Your task to perform on an android device: delete location history Image 0: 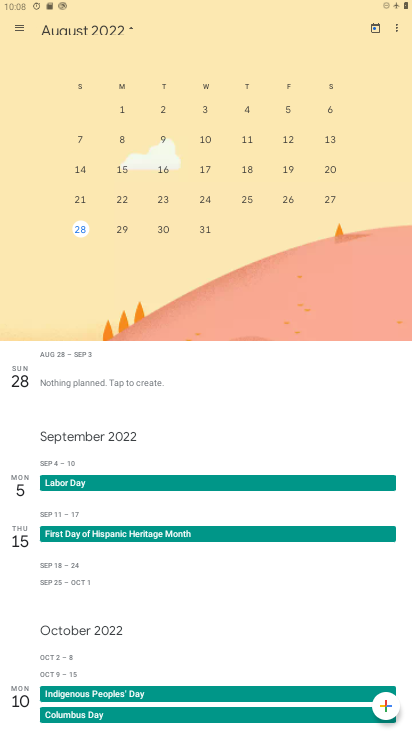
Step 0: press home button
Your task to perform on an android device: delete location history Image 1: 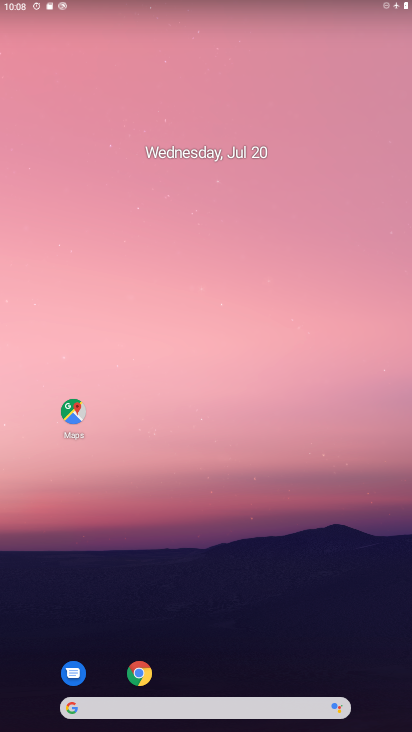
Step 1: drag from (359, 627) to (188, 9)
Your task to perform on an android device: delete location history Image 2: 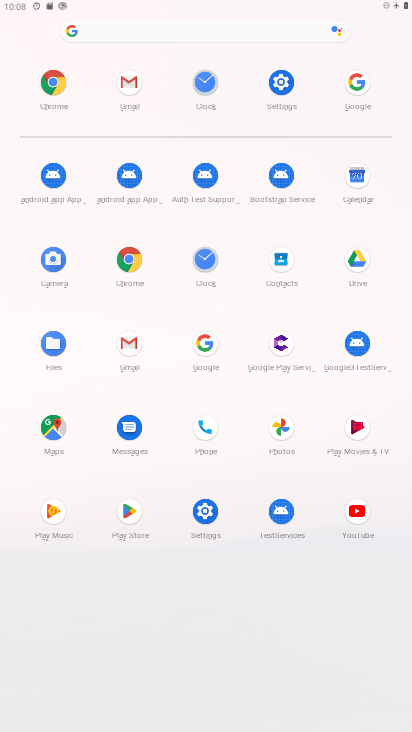
Step 2: click (206, 520)
Your task to perform on an android device: delete location history Image 3: 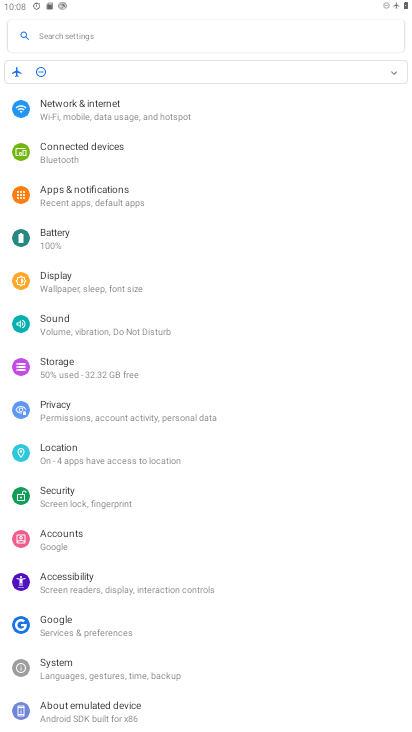
Step 3: click (103, 456)
Your task to perform on an android device: delete location history Image 4: 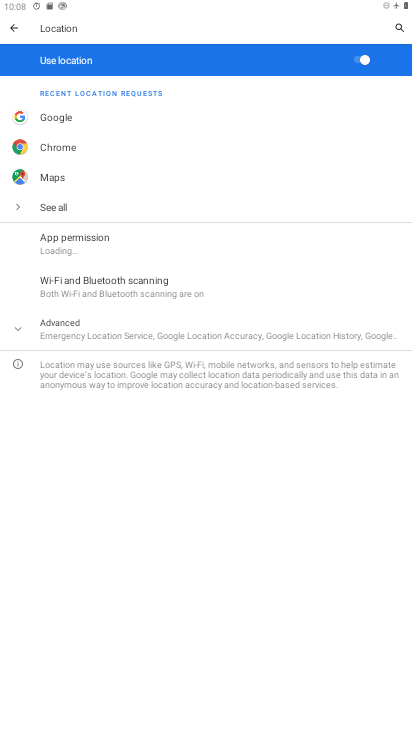
Step 4: click (70, 320)
Your task to perform on an android device: delete location history Image 5: 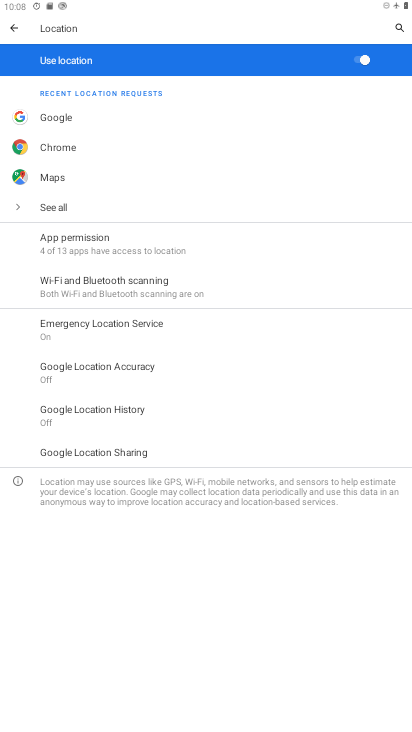
Step 5: click (144, 409)
Your task to perform on an android device: delete location history Image 6: 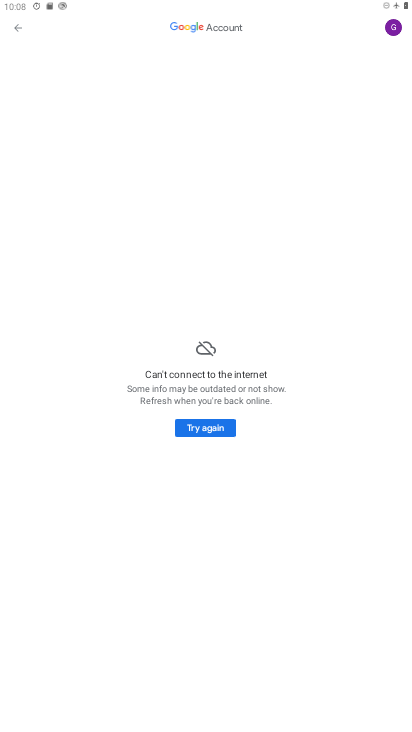
Step 6: task complete